Your task to perform on an android device: turn on improve location accuracy Image 0: 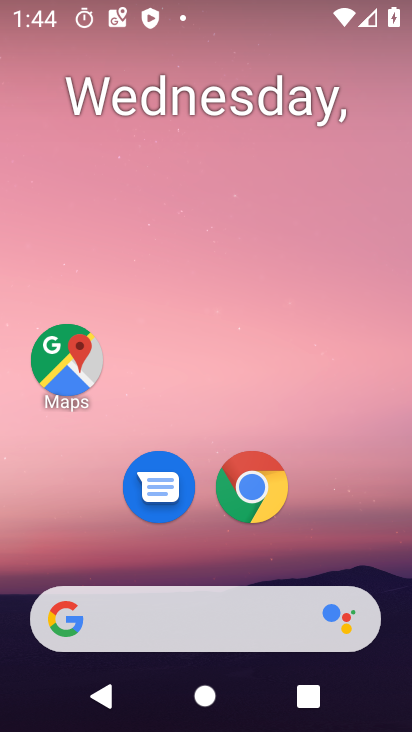
Step 0: drag from (129, 578) to (257, 51)
Your task to perform on an android device: turn on improve location accuracy Image 1: 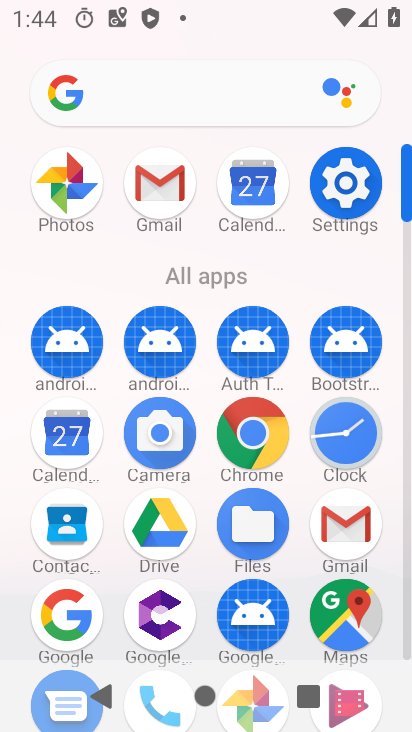
Step 1: click (344, 189)
Your task to perform on an android device: turn on improve location accuracy Image 2: 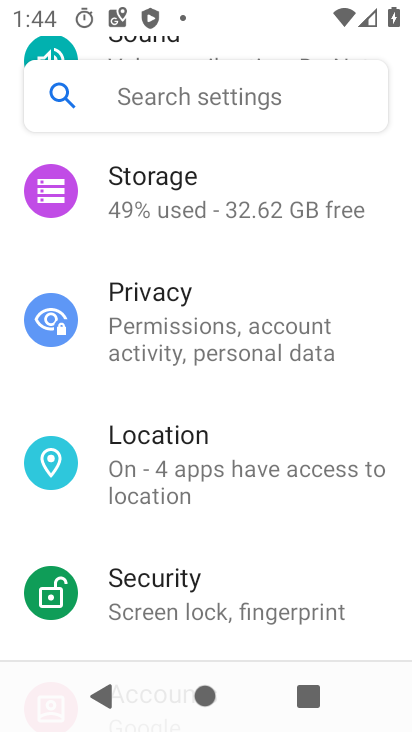
Step 2: click (159, 484)
Your task to perform on an android device: turn on improve location accuracy Image 3: 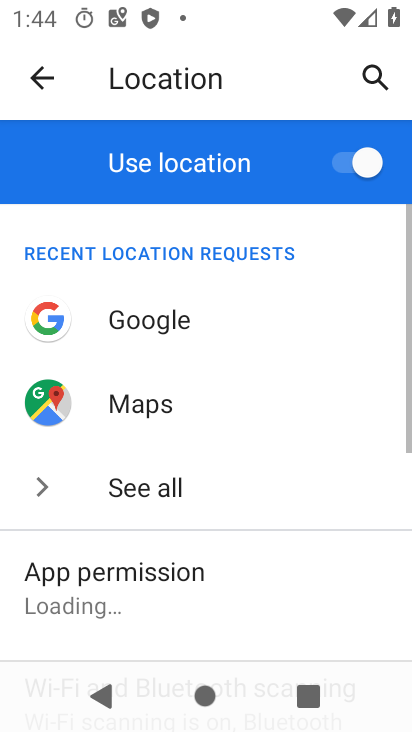
Step 3: drag from (182, 577) to (295, 147)
Your task to perform on an android device: turn on improve location accuracy Image 4: 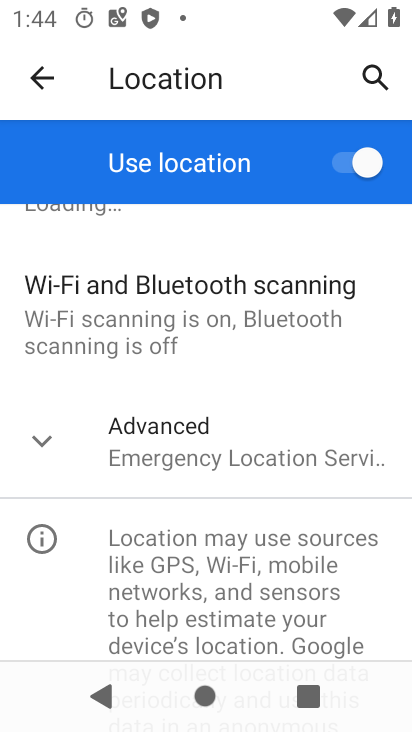
Step 4: click (274, 450)
Your task to perform on an android device: turn on improve location accuracy Image 5: 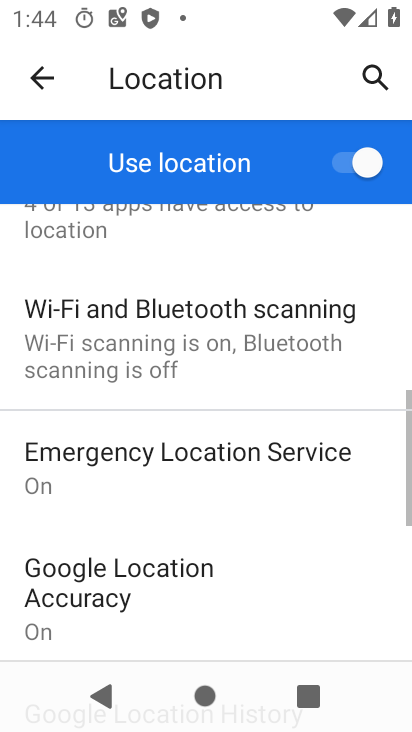
Step 5: click (191, 591)
Your task to perform on an android device: turn on improve location accuracy Image 6: 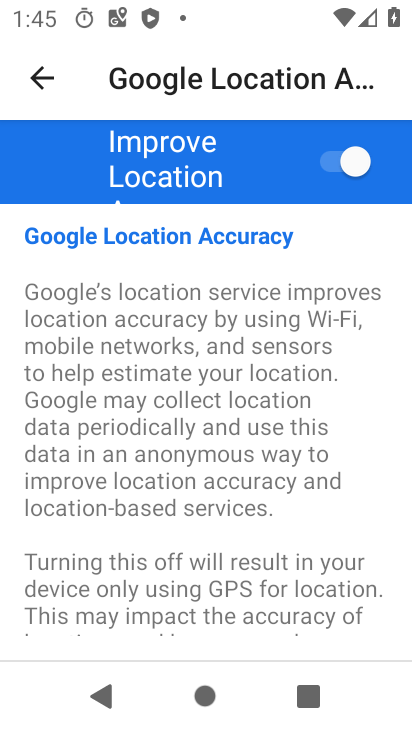
Step 6: task complete